Your task to perform on an android device: Go to internet settings Image 0: 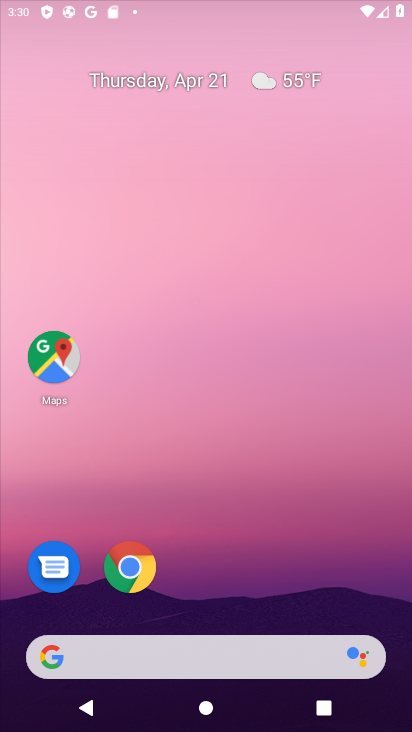
Step 0: press home button
Your task to perform on an android device: Go to internet settings Image 1: 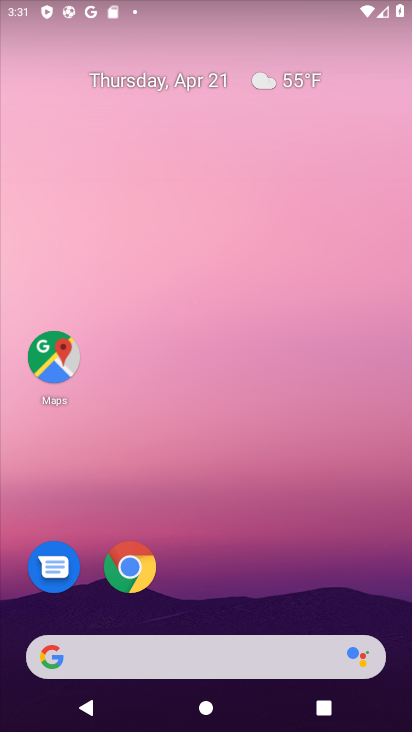
Step 1: drag from (210, 534) to (264, 2)
Your task to perform on an android device: Go to internet settings Image 2: 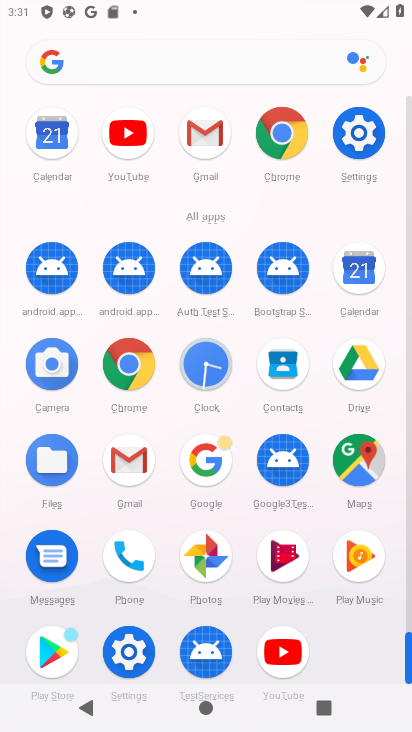
Step 2: click (246, 35)
Your task to perform on an android device: Go to internet settings Image 3: 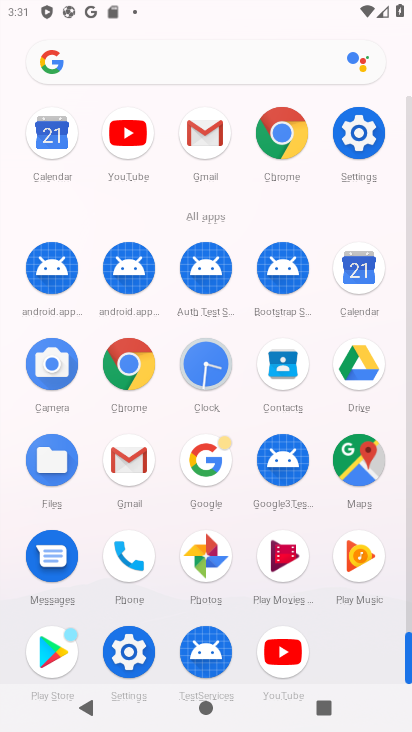
Step 3: click (359, 126)
Your task to perform on an android device: Go to internet settings Image 4: 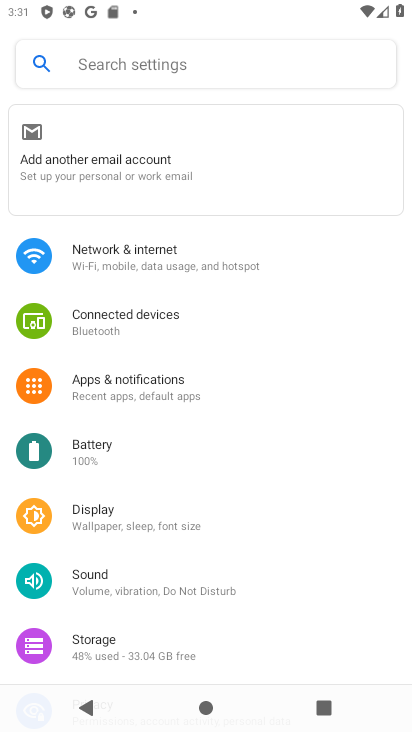
Step 4: click (359, 126)
Your task to perform on an android device: Go to internet settings Image 5: 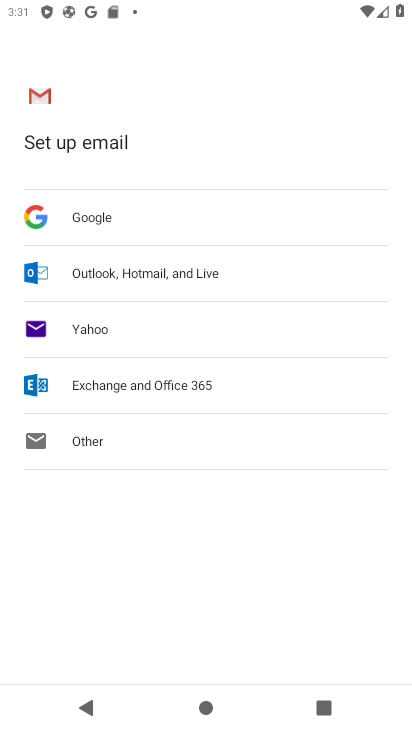
Step 5: press home button
Your task to perform on an android device: Go to internet settings Image 6: 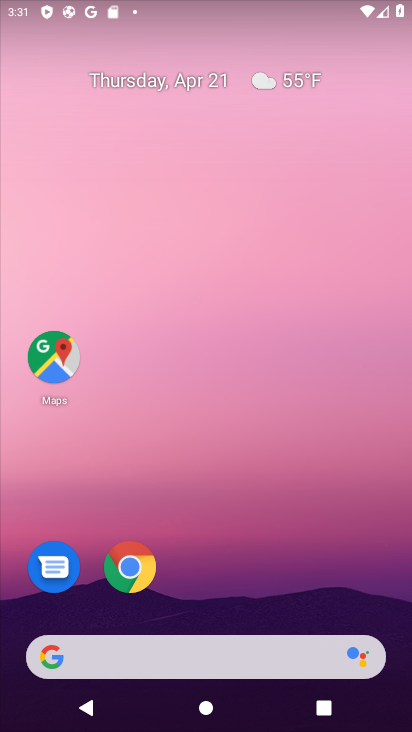
Step 6: drag from (205, 601) to (207, 13)
Your task to perform on an android device: Go to internet settings Image 7: 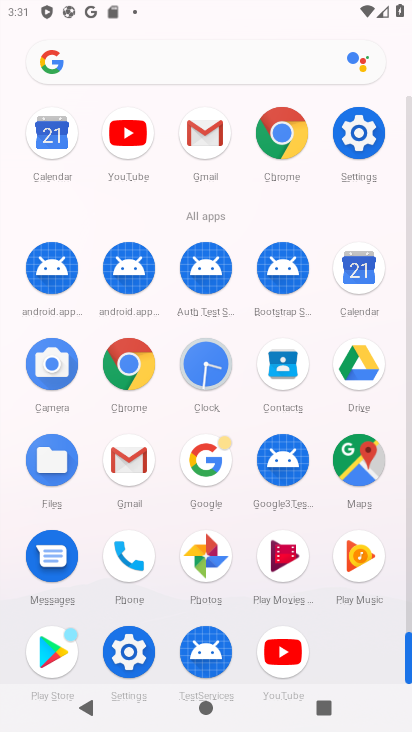
Step 7: click (358, 127)
Your task to perform on an android device: Go to internet settings Image 8: 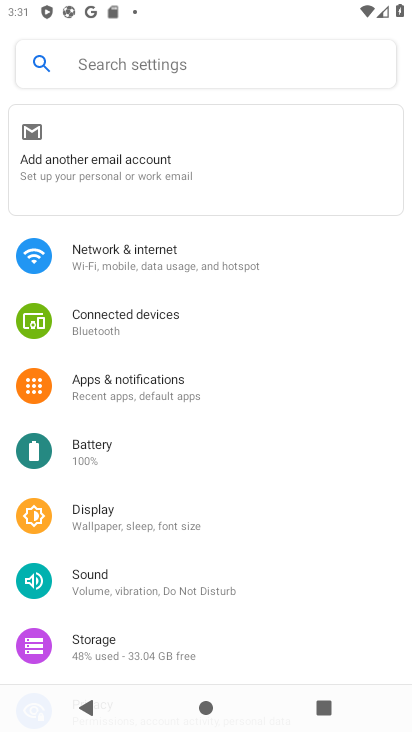
Step 8: click (184, 254)
Your task to perform on an android device: Go to internet settings Image 9: 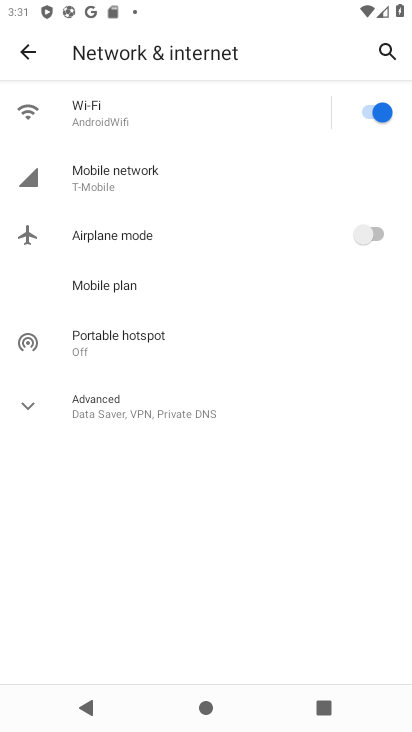
Step 9: click (30, 400)
Your task to perform on an android device: Go to internet settings Image 10: 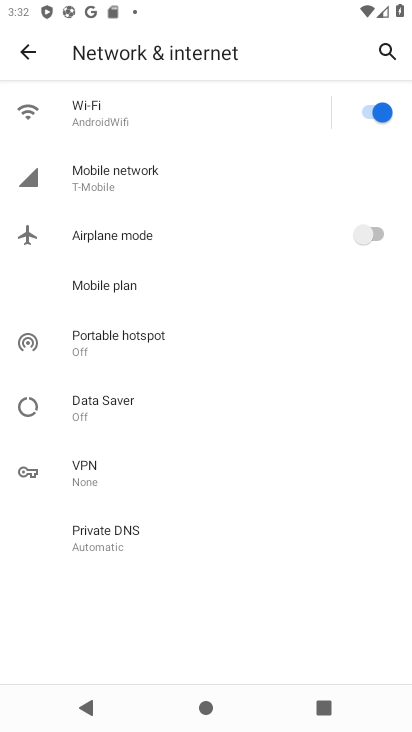
Step 10: task complete